Your task to perform on an android device: View the shopping cart on target.com. Add jbl charge 4 to the cart on target.com Image 0: 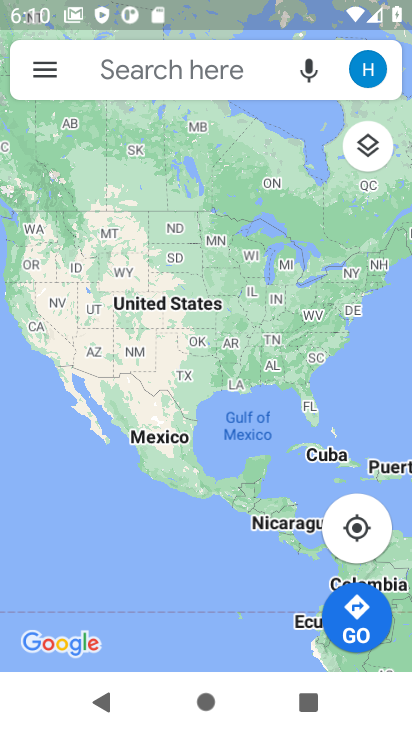
Step 0: press home button
Your task to perform on an android device: View the shopping cart on target.com. Add jbl charge 4 to the cart on target.com Image 1: 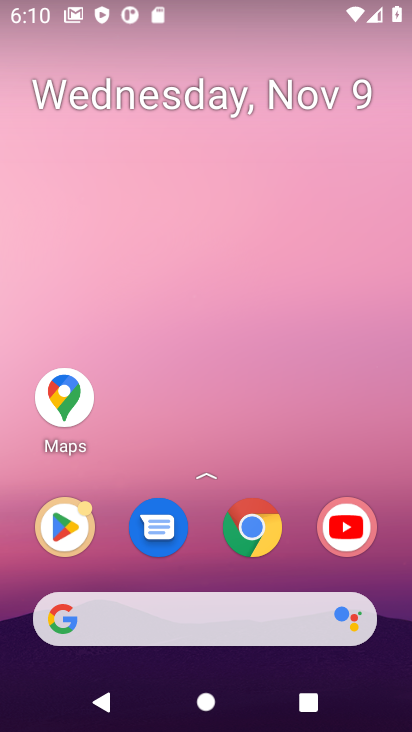
Step 1: click (268, 537)
Your task to perform on an android device: View the shopping cart on target.com. Add jbl charge 4 to the cart on target.com Image 2: 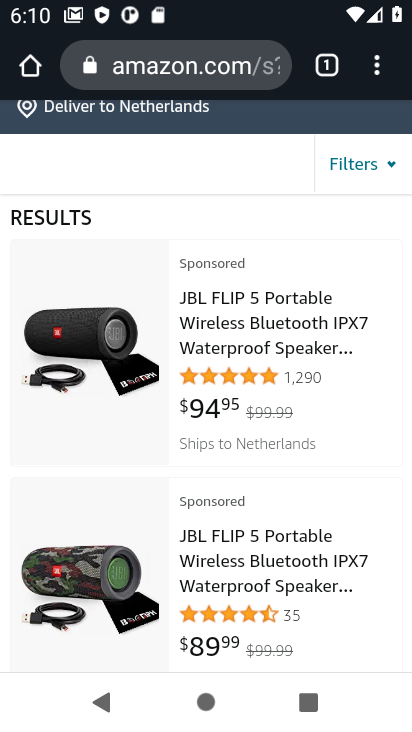
Step 2: click (161, 73)
Your task to perform on an android device: View the shopping cart on target.com. Add jbl charge 4 to the cart on target.com Image 3: 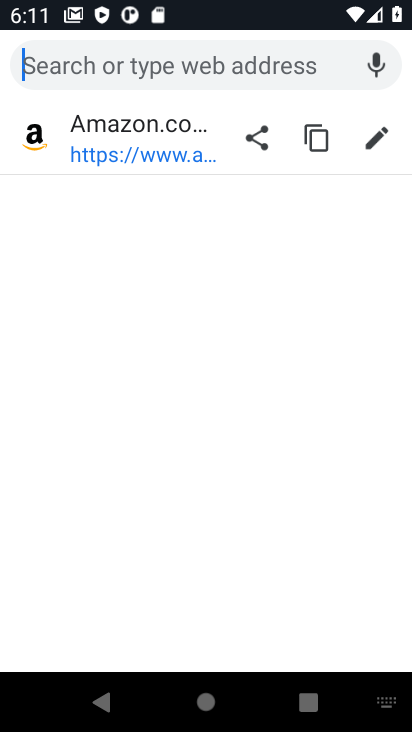
Step 3: type "target.com"
Your task to perform on an android device: View the shopping cart on target.com. Add jbl charge 4 to the cart on target.com Image 4: 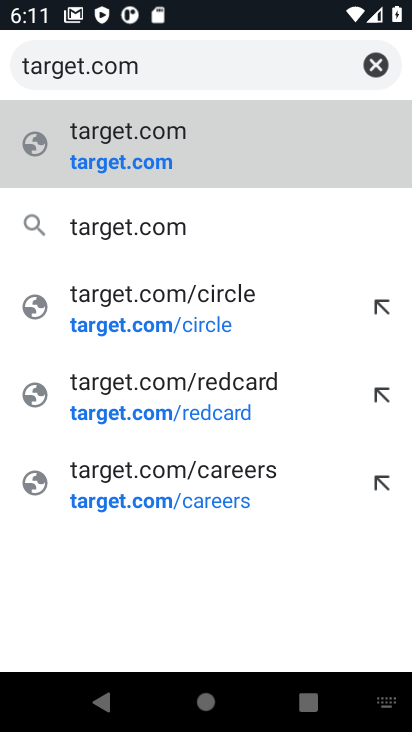
Step 4: click (101, 151)
Your task to perform on an android device: View the shopping cart on target.com. Add jbl charge 4 to the cart on target.com Image 5: 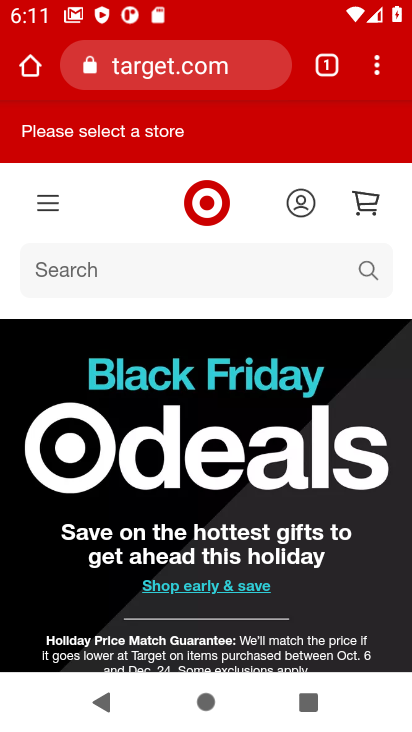
Step 5: click (371, 202)
Your task to perform on an android device: View the shopping cart on target.com. Add jbl charge 4 to the cart on target.com Image 6: 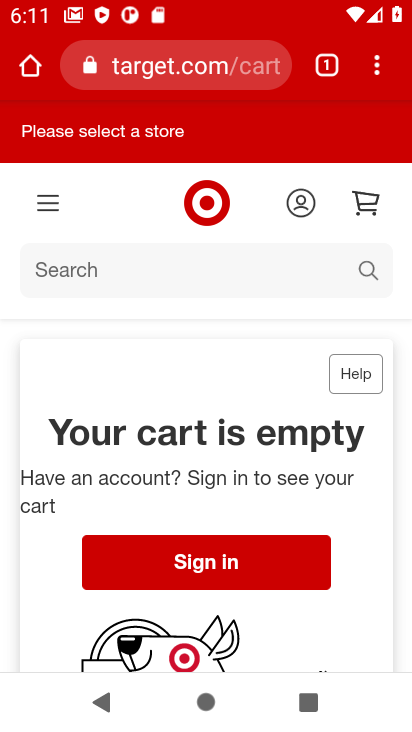
Step 6: click (364, 272)
Your task to perform on an android device: View the shopping cart on target.com. Add jbl charge 4 to the cart on target.com Image 7: 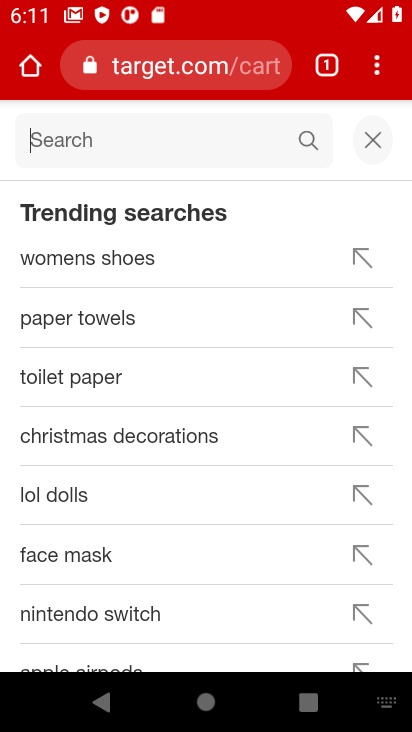
Step 7: type " jbl charge 4"
Your task to perform on an android device: View the shopping cart on target.com. Add jbl charge 4 to the cart on target.com Image 8: 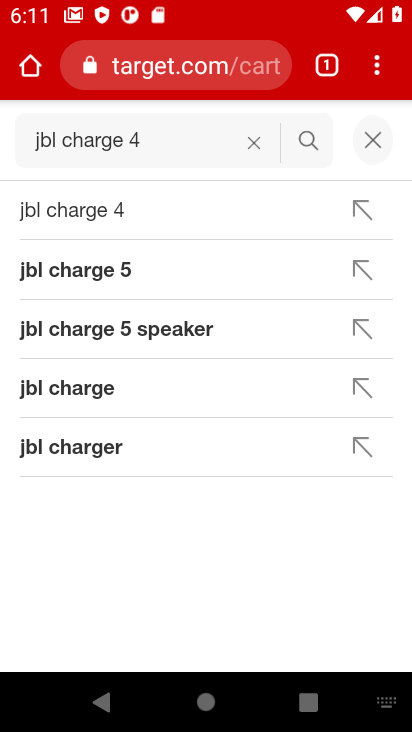
Step 8: click (99, 219)
Your task to perform on an android device: View the shopping cart on target.com. Add jbl charge 4 to the cart on target.com Image 9: 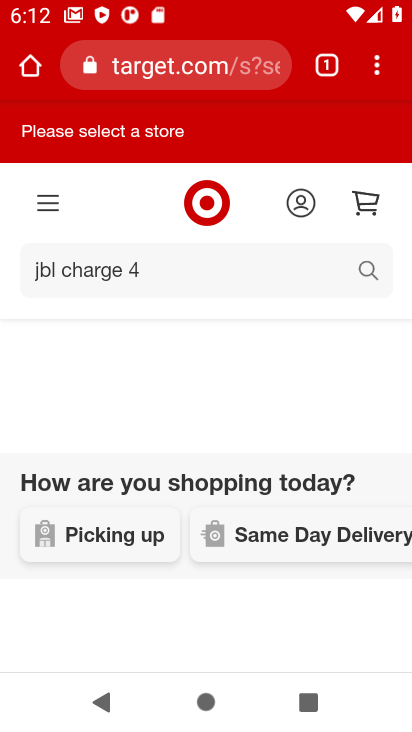
Step 9: task complete